Your task to perform on an android device: toggle wifi Image 0: 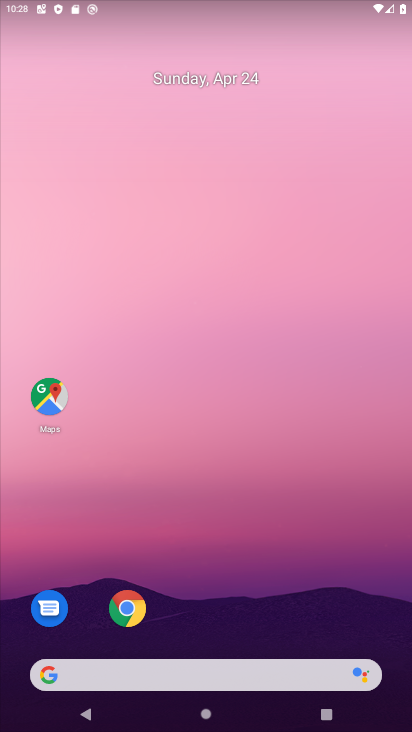
Step 0: press home button
Your task to perform on an android device: toggle wifi Image 1: 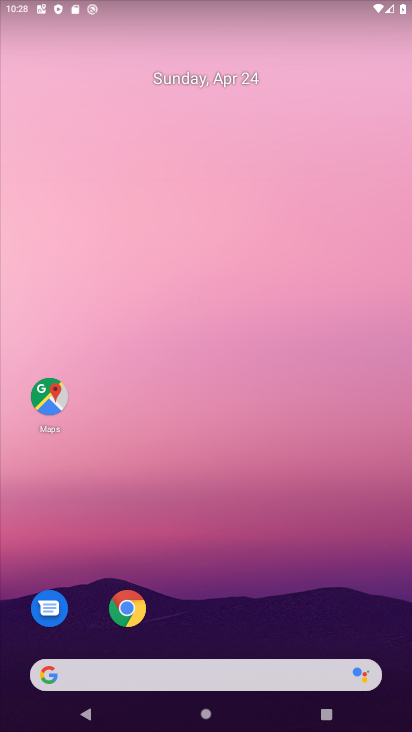
Step 1: drag from (282, 637) to (300, 279)
Your task to perform on an android device: toggle wifi Image 2: 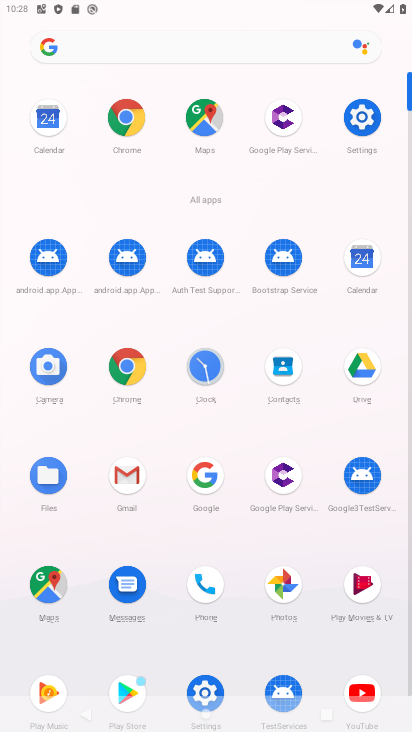
Step 2: click (362, 136)
Your task to perform on an android device: toggle wifi Image 3: 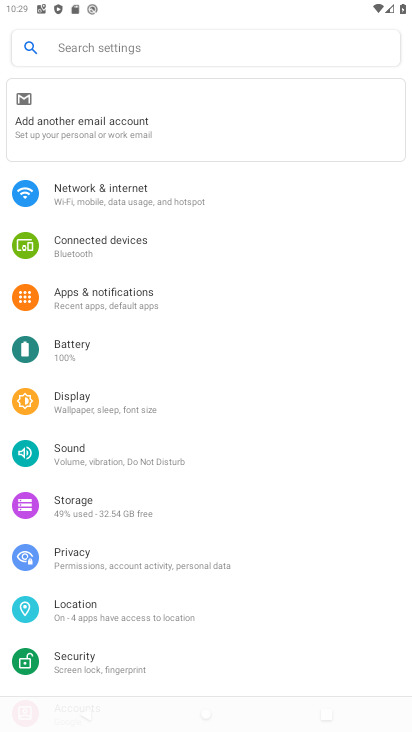
Step 3: click (132, 191)
Your task to perform on an android device: toggle wifi Image 4: 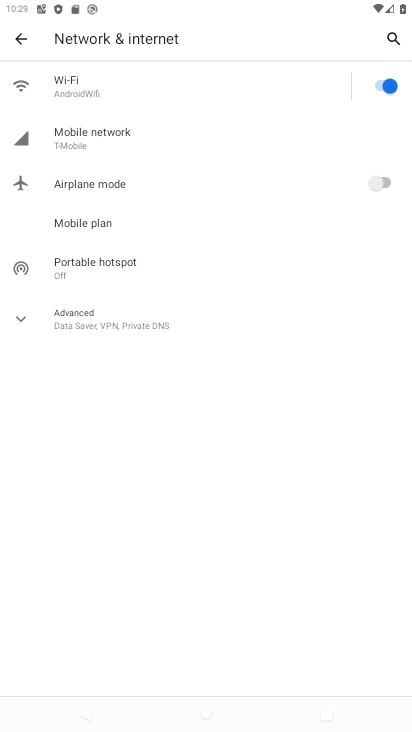
Step 4: click (117, 91)
Your task to perform on an android device: toggle wifi Image 5: 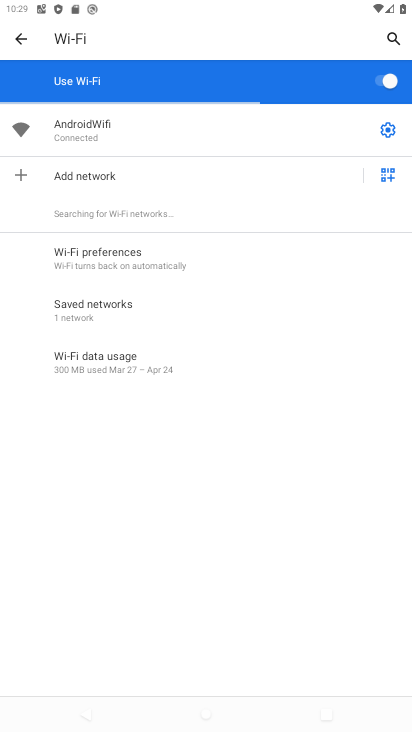
Step 5: task complete